Your task to perform on an android device: empty trash in the gmail app Image 0: 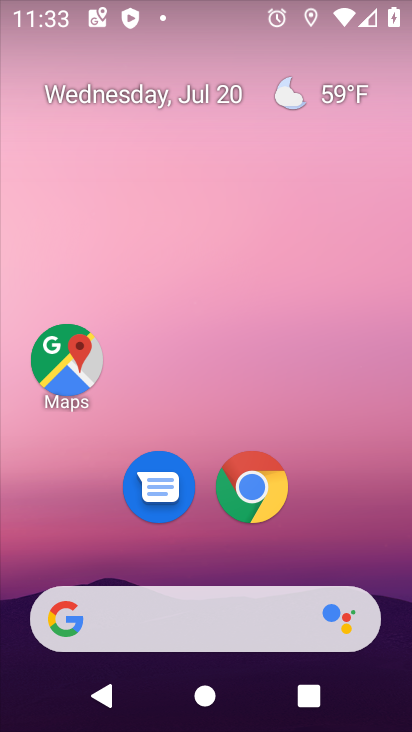
Step 0: drag from (331, 533) to (374, 65)
Your task to perform on an android device: empty trash in the gmail app Image 1: 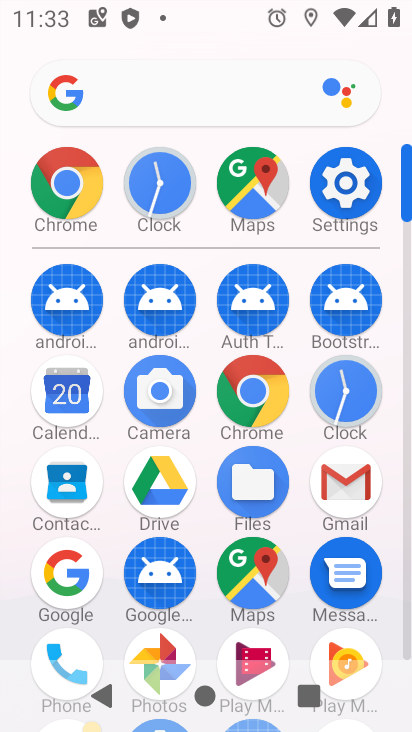
Step 1: click (334, 483)
Your task to perform on an android device: empty trash in the gmail app Image 2: 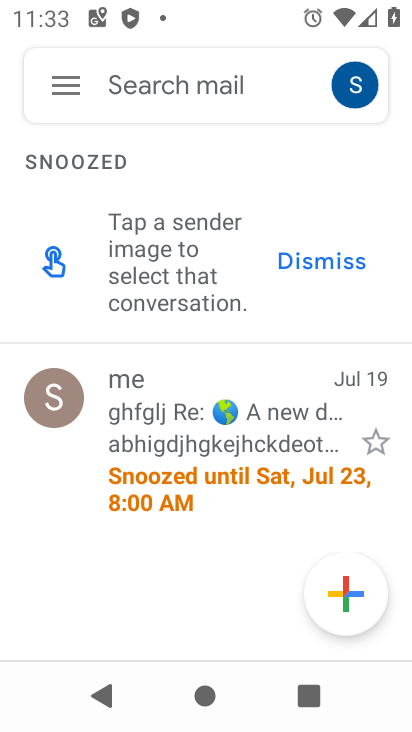
Step 2: click (63, 88)
Your task to perform on an android device: empty trash in the gmail app Image 3: 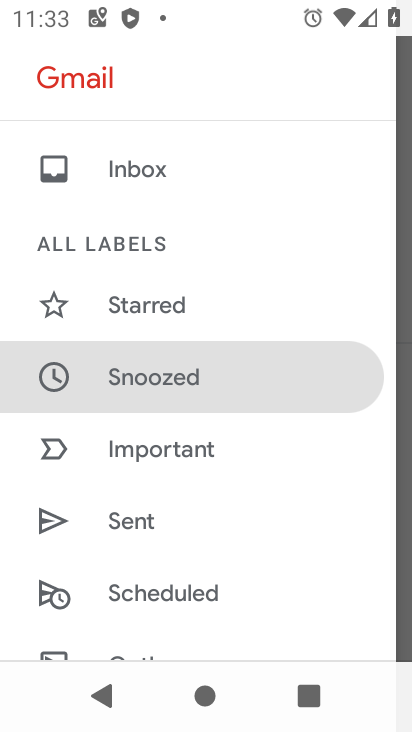
Step 3: drag from (315, 448) to (347, 313)
Your task to perform on an android device: empty trash in the gmail app Image 4: 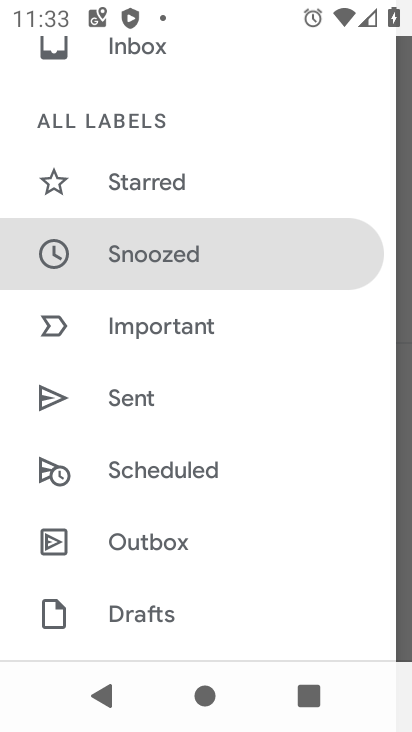
Step 4: drag from (291, 483) to (300, 388)
Your task to perform on an android device: empty trash in the gmail app Image 5: 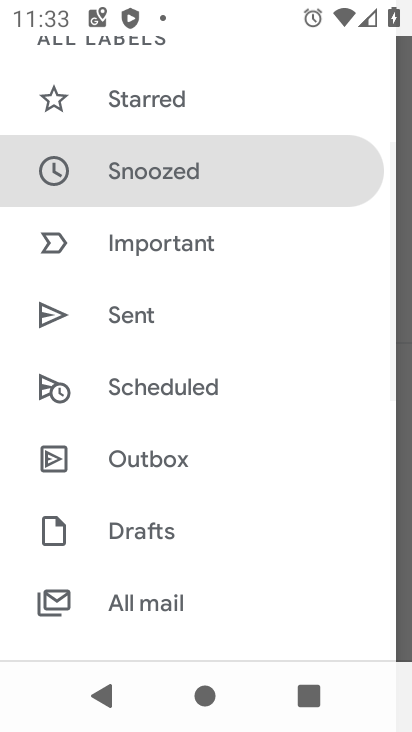
Step 5: drag from (288, 482) to (307, 384)
Your task to perform on an android device: empty trash in the gmail app Image 6: 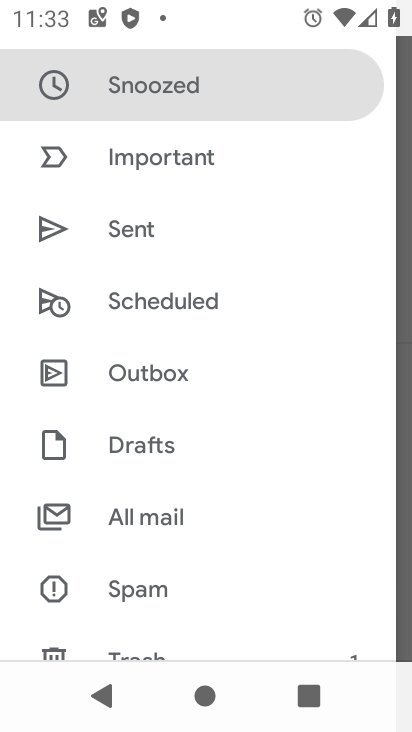
Step 6: drag from (286, 460) to (305, 351)
Your task to perform on an android device: empty trash in the gmail app Image 7: 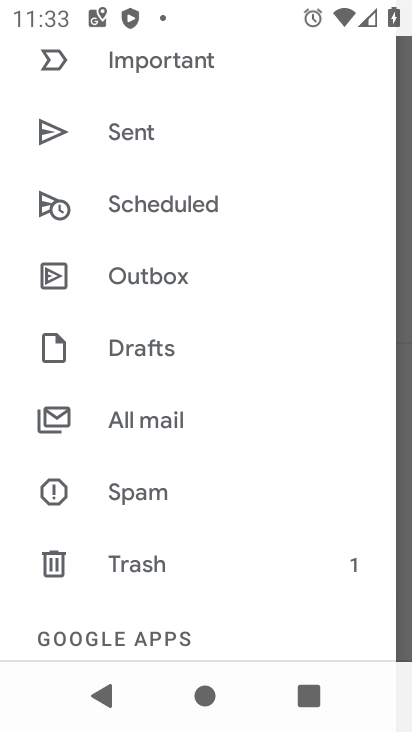
Step 7: drag from (300, 424) to (320, 312)
Your task to perform on an android device: empty trash in the gmail app Image 8: 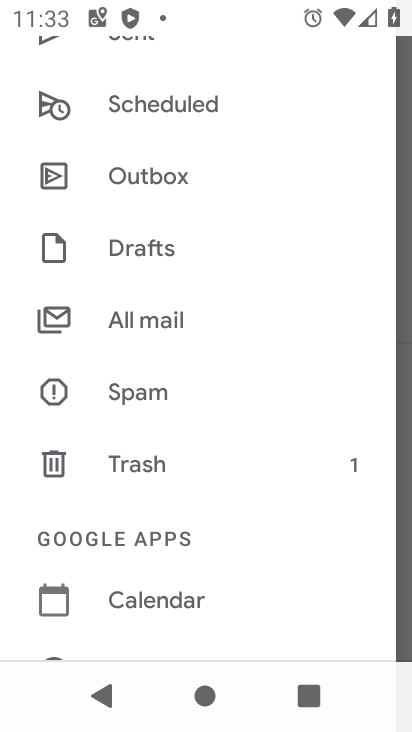
Step 8: drag from (279, 433) to (278, 201)
Your task to perform on an android device: empty trash in the gmail app Image 9: 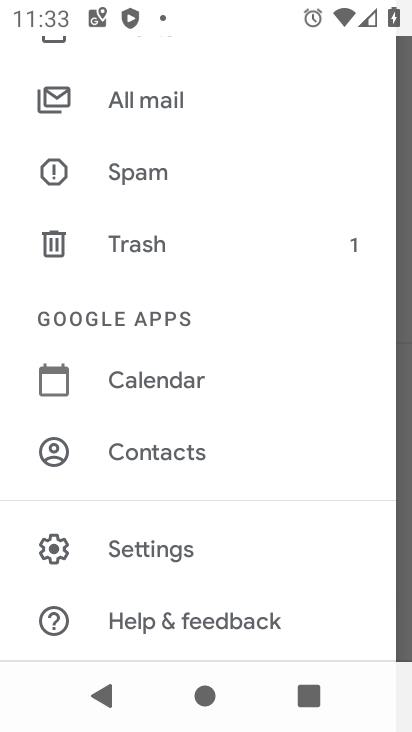
Step 9: drag from (260, 425) to (246, 264)
Your task to perform on an android device: empty trash in the gmail app Image 10: 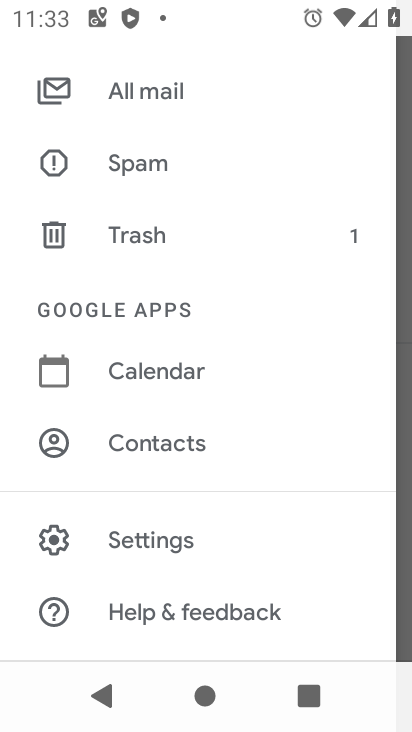
Step 10: click (219, 243)
Your task to perform on an android device: empty trash in the gmail app Image 11: 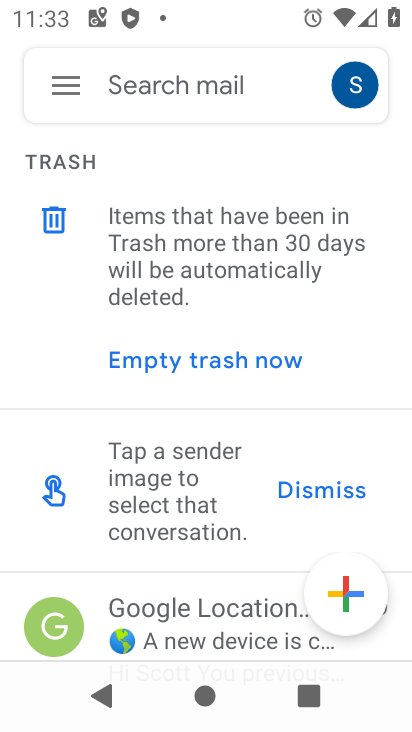
Step 11: click (190, 364)
Your task to perform on an android device: empty trash in the gmail app Image 12: 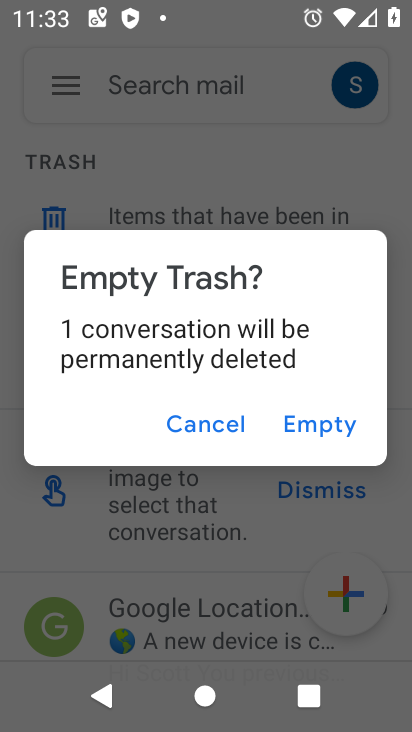
Step 12: click (315, 420)
Your task to perform on an android device: empty trash in the gmail app Image 13: 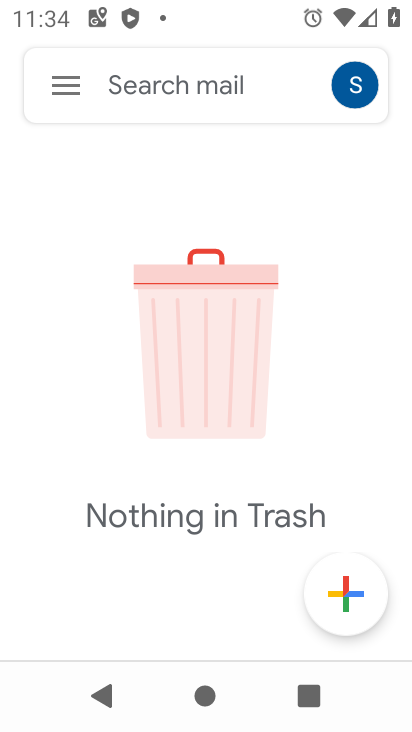
Step 13: task complete